Your task to perform on an android device: Search for vegetarian restaurants on Maps Image 0: 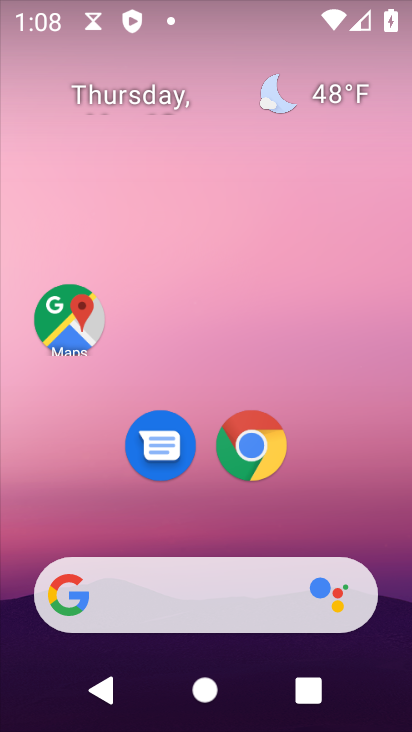
Step 0: click (58, 333)
Your task to perform on an android device: Search for vegetarian restaurants on Maps Image 1: 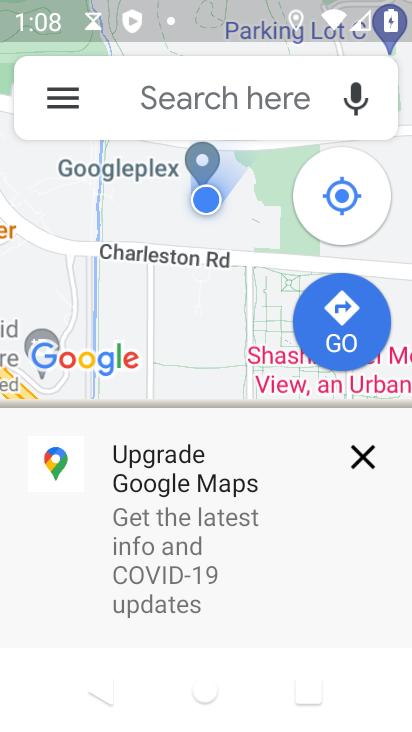
Step 1: click (204, 100)
Your task to perform on an android device: Search for vegetarian restaurants on Maps Image 2: 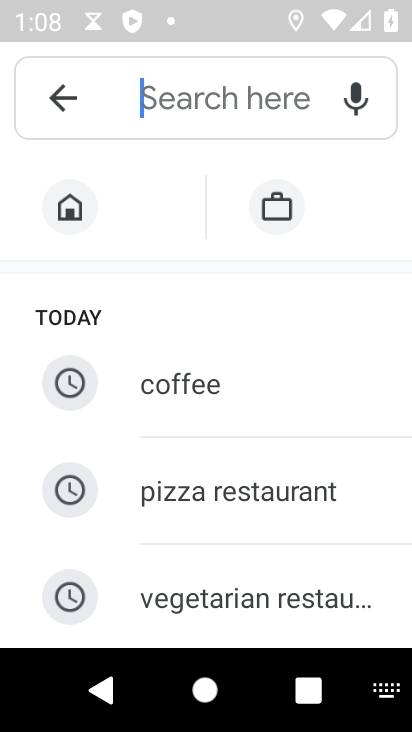
Step 2: click (262, 587)
Your task to perform on an android device: Search for vegetarian restaurants on Maps Image 3: 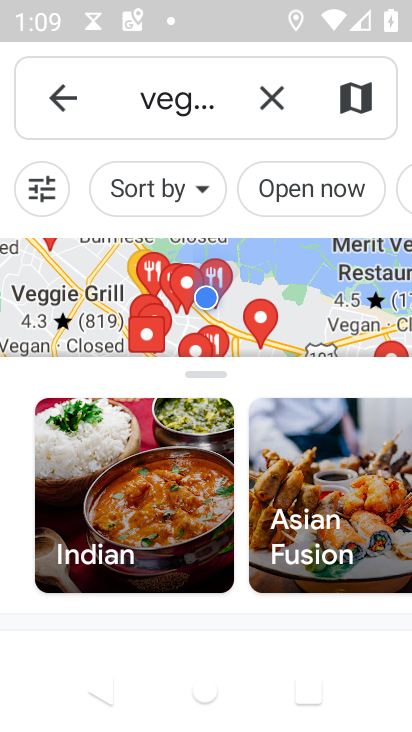
Step 3: task complete